Your task to perform on an android device: Check the news Image 0: 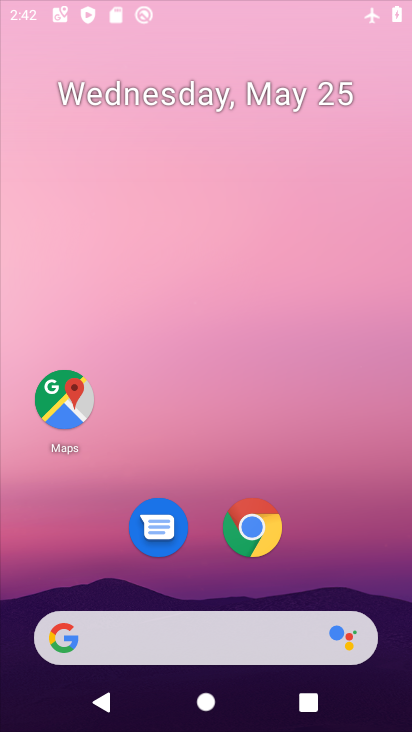
Step 0: click (274, 178)
Your task to perform on an android device: Check the news Image 1: 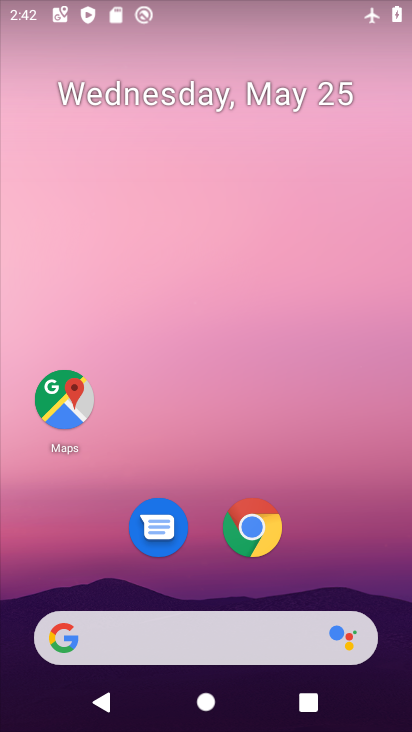
Step 1: drag from (231, 538) to (316, 275)
Your task to perform on an android device: Check the news Image 2: 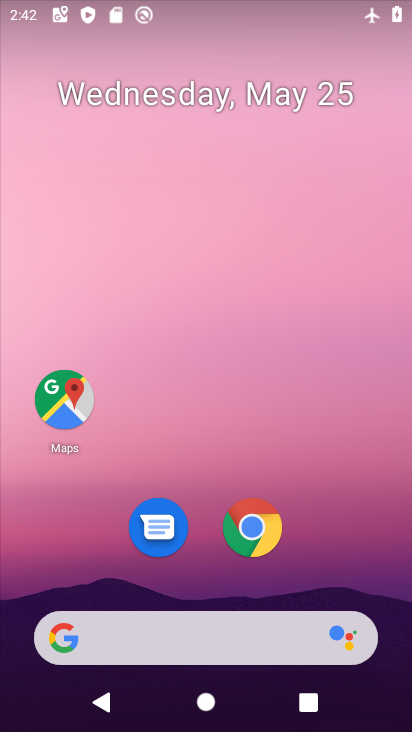
Step 2: drag from (206, 557) to (297, 2)
Your task to perform on an android device: Check the news Image 3: 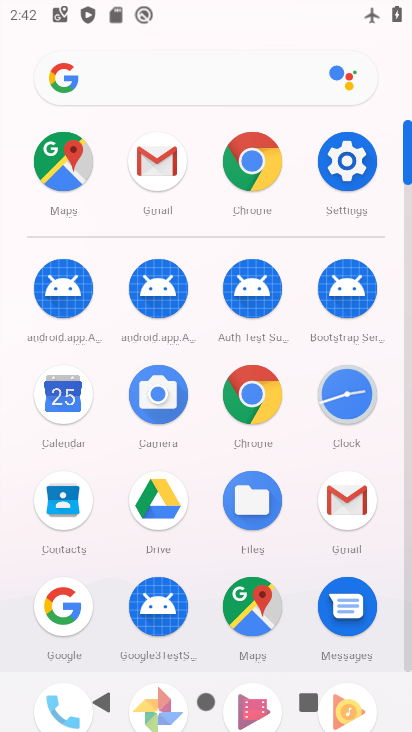
Step 3: click (136, 72)
Your task to perform on an android device: Check the news Image 4: 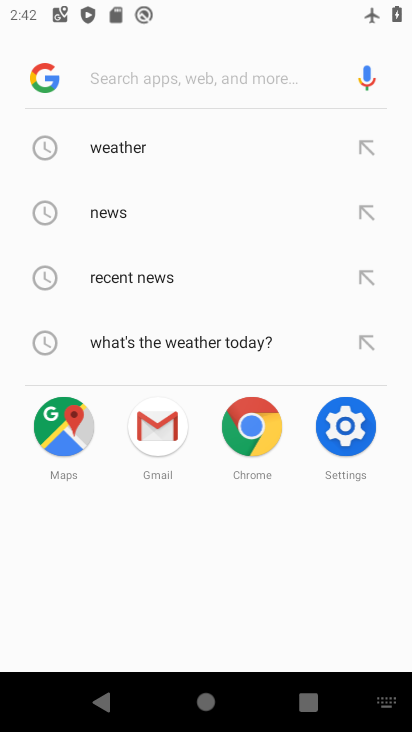
Step 4: click (138, 233)
Your task to perform on an android device: Check the news Image 5: 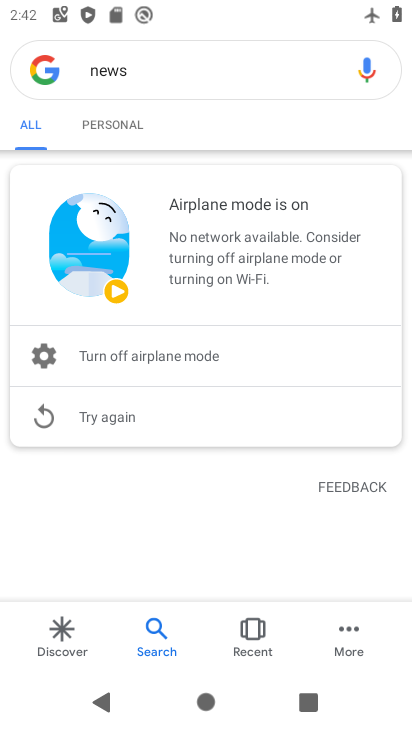
Step 5: task complete